Your task to perform on an android device: Open Android settings Image 0: 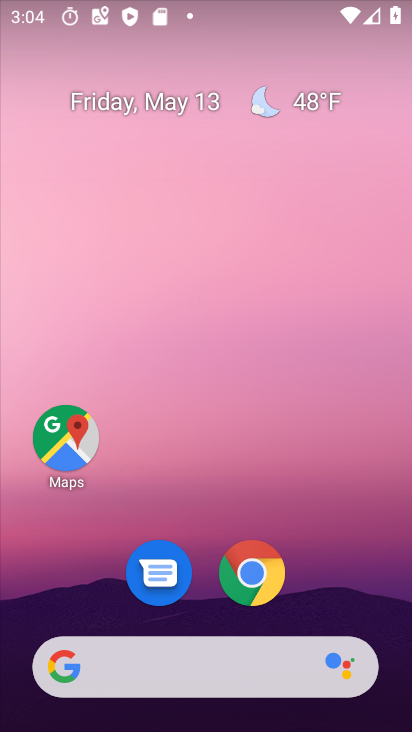
Step 0: drag from (257, 630) to (348, 207)
Your task to perform on an android device: Open Android settings Image 1: 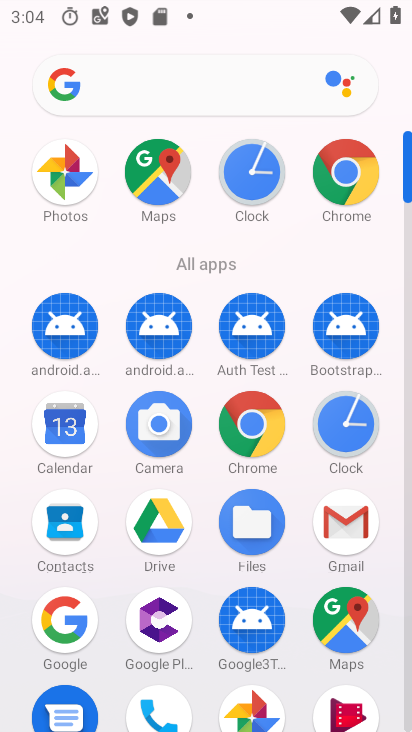
Step 1: drag from (215, 631) to (299, 377)
Your task to perform on an android device: Open Android settings Image 2: 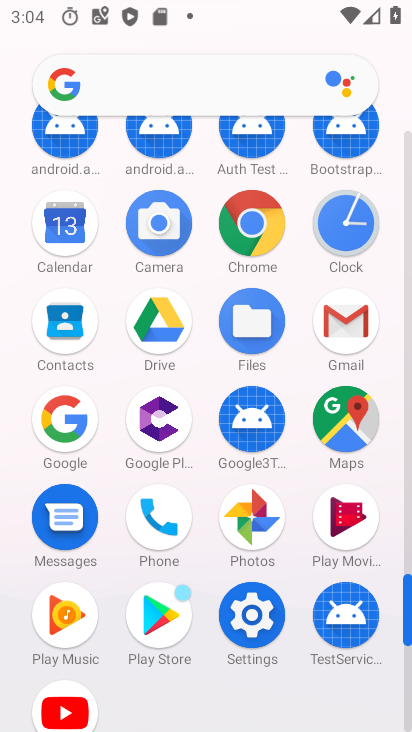
Step 2: click (255, 619)
Your task to perform on an android device: Open Android settings Image 3: 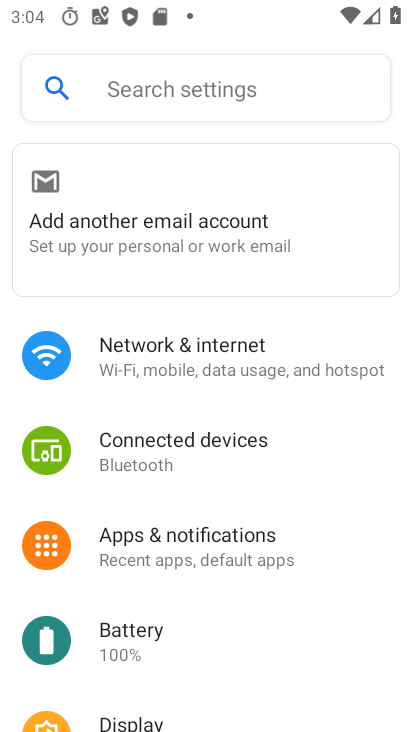
Step 3: task complete